Your task to perform on an android device: open app "Cash App" (install if not already installed) and go to login screen Image 0: 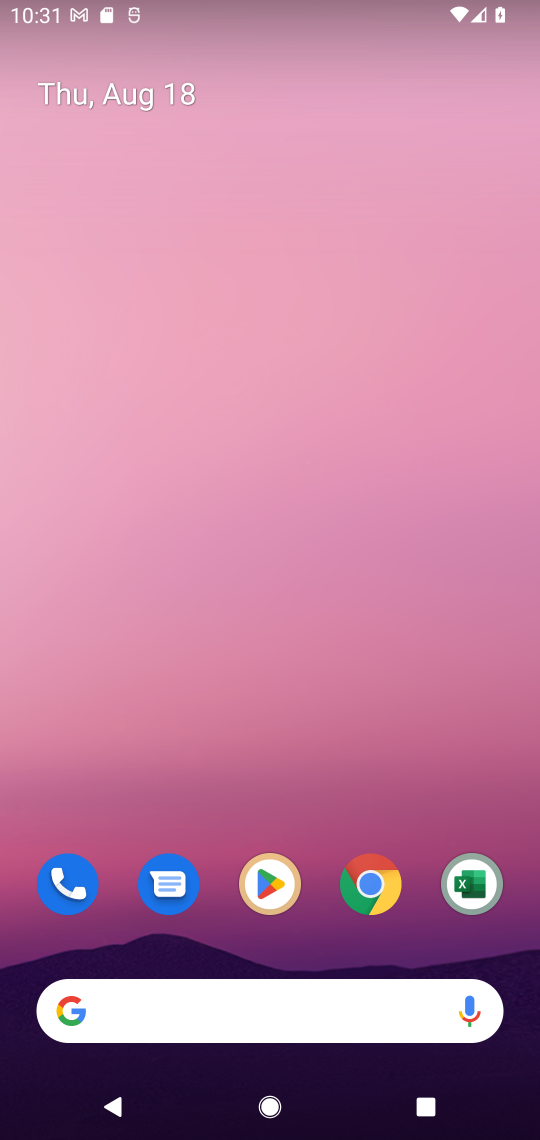
Step 0: drag from (237, 1026) to (333, 165)
Your task to perform on an android device: open app "Cash App" (install if not already installed) and go to login screen Image 1: 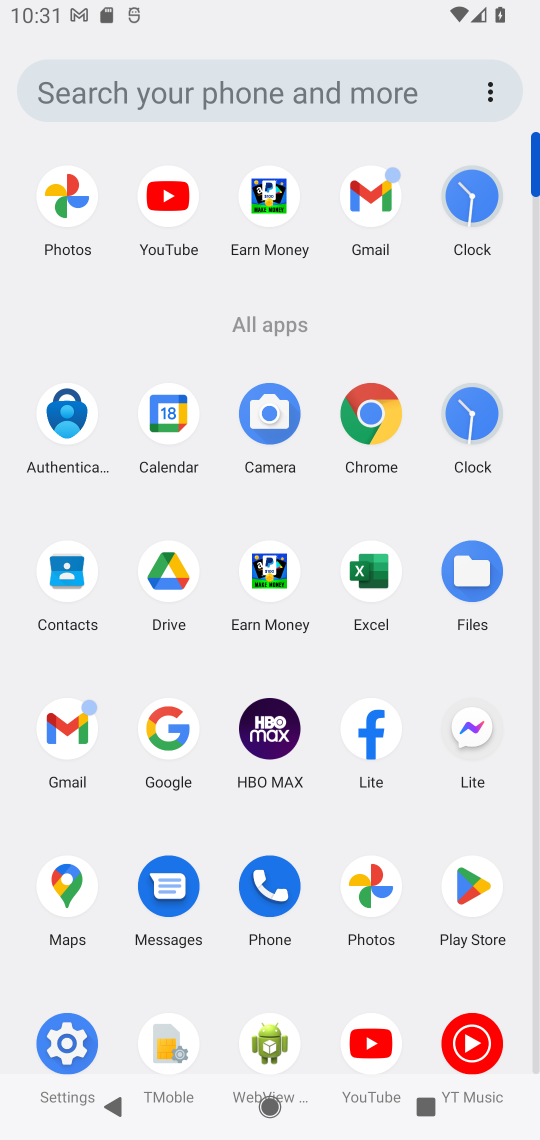
Step 1: click (478, 880)
Your task to perform on an android device: open app "Cash App" (install if not already installed) and go to login screen Image 2: 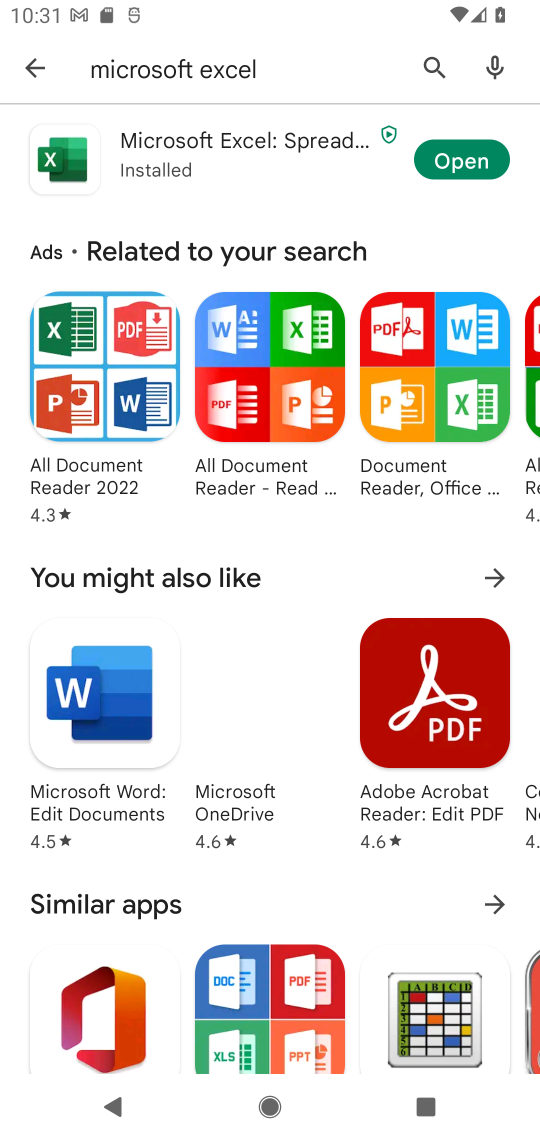
Step 2: press back button
Your task to perform on an android device: open app "Cash App" (install if not already installed) and go to login screen Image 3: 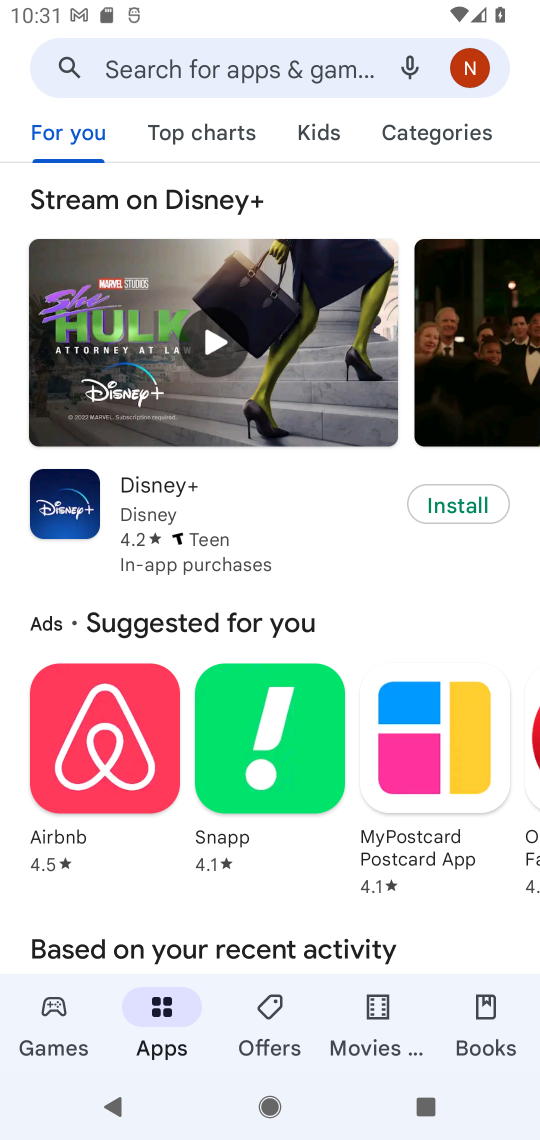
Step 3: click (266, 72)
Your task to perform on an android device: open app "Cash App" (install if not already installed) and go to login screen Image 4: 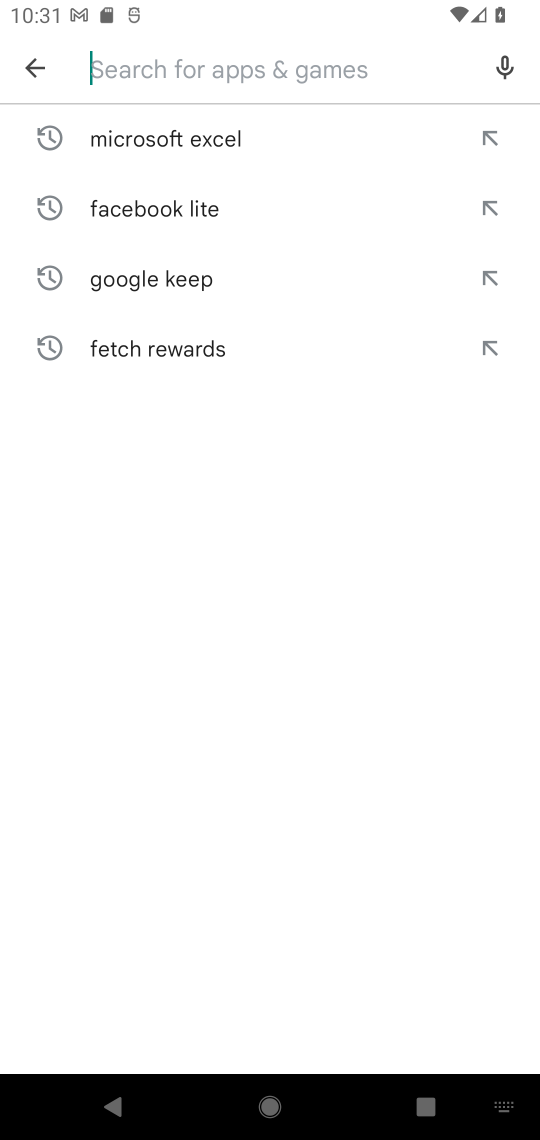
Step 4: type "Cash App"
Your task to perform on an android device: open app "Cash App" (install if not already installed) and go to login screen Image 5: 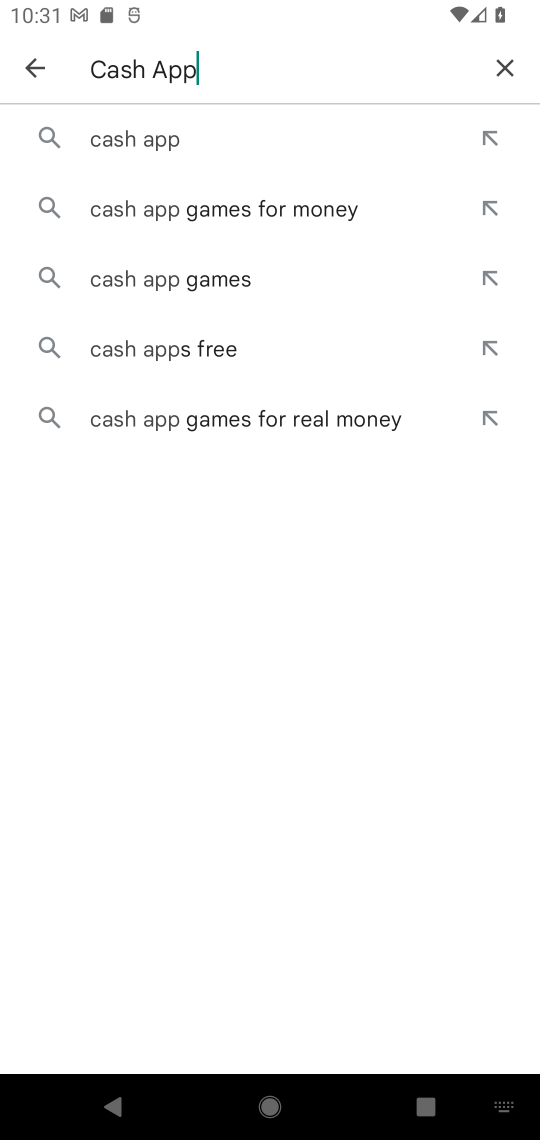
Step 5: click (160, 137)
Your task to perform on an android device: open app "Cash App" (install if not already installed) and go to login screen Image 6: 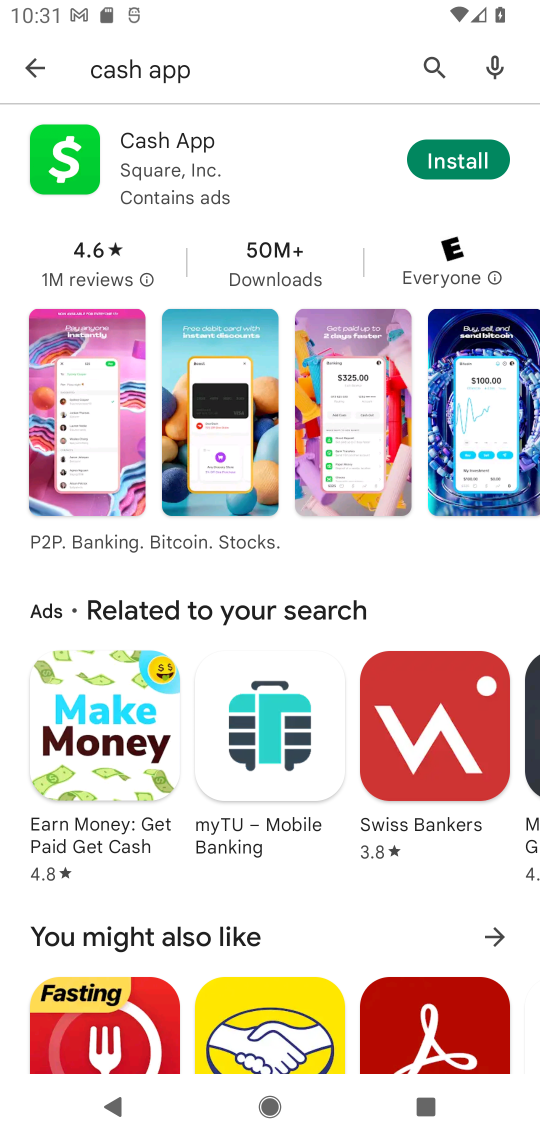
Step 6: click (442, 171)
Your task to perform on an android device: open app "Cash App" (install if not already installed) and go to login screen Image 7: 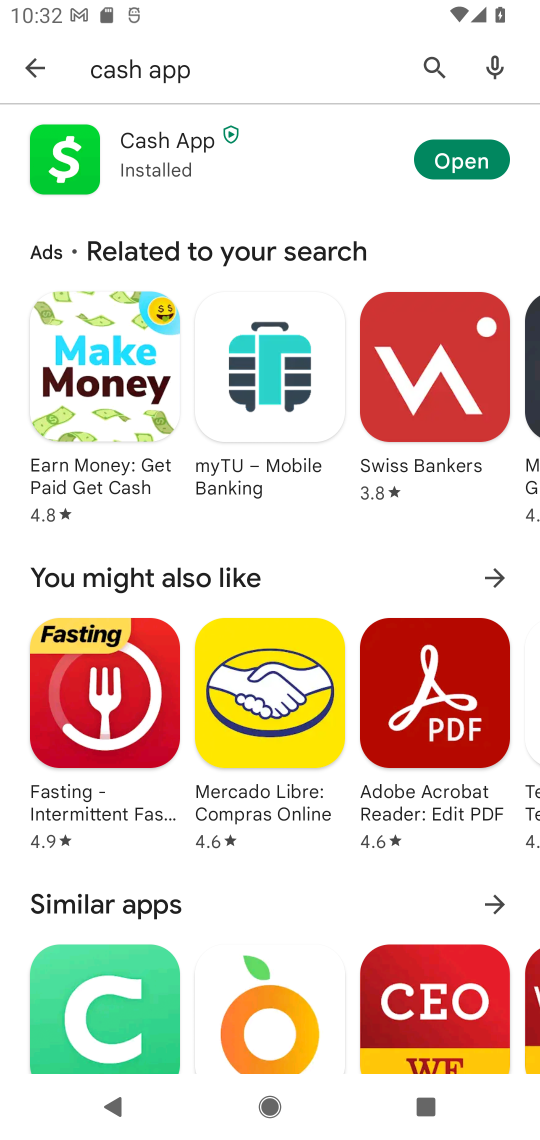
Step 7: click (482, 160)
Your task to perform on an android device: open app "Cash App" (install if not already installed) and go to login screen Image 8: 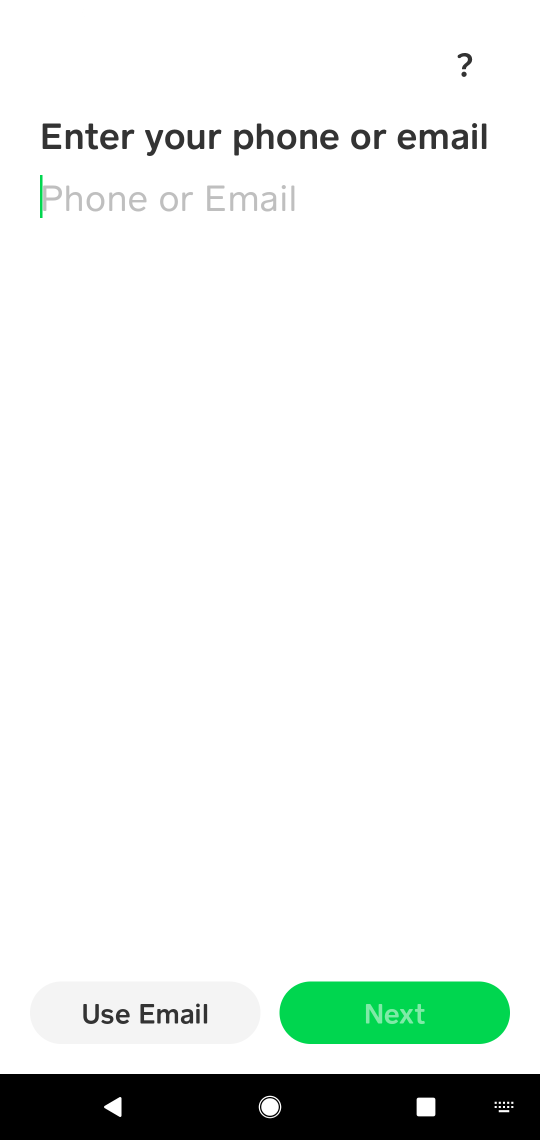
Step 8: click (177, 1019)
Your task to perform on an android device: open app "Cash App" (install if not already installed) and go to login screen Image 9: 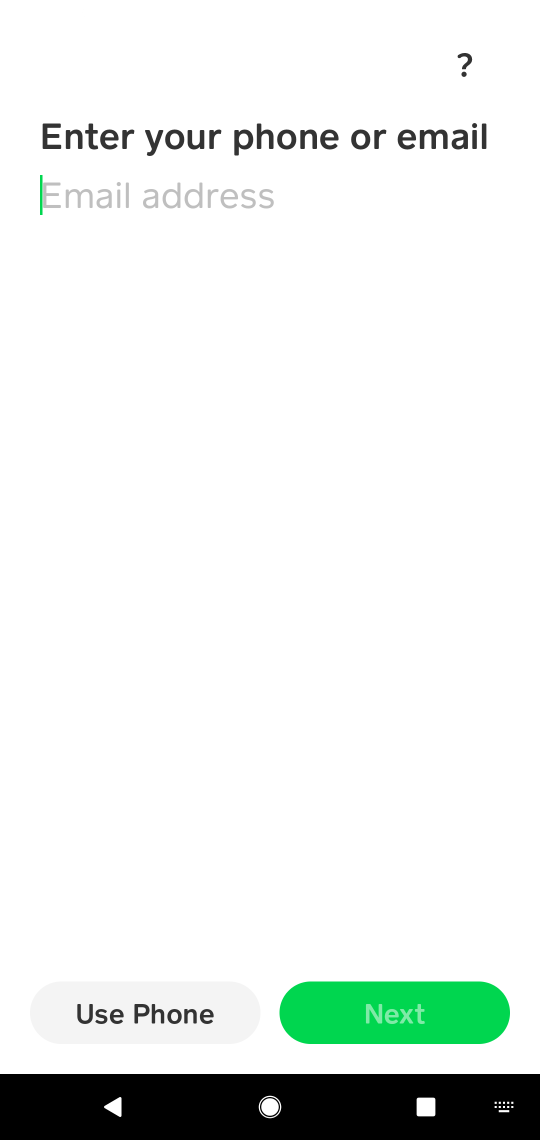
Step 9: task complete